Your task to perform on an android device: Go to Amazon Image 0: 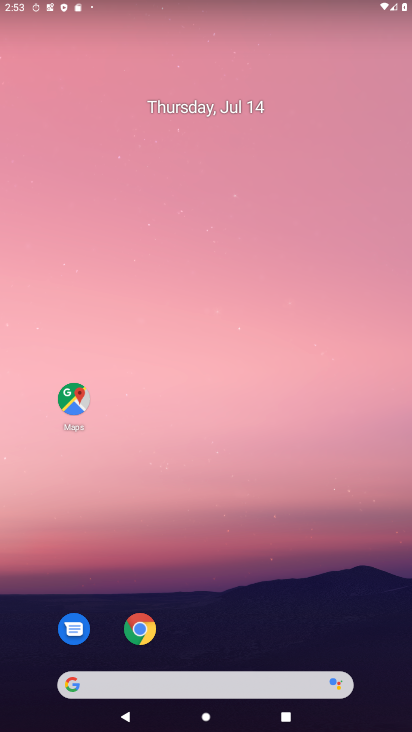
Step 0: click (134, 635)
Your task to perform on an android device: Go to Amazon Image 1: 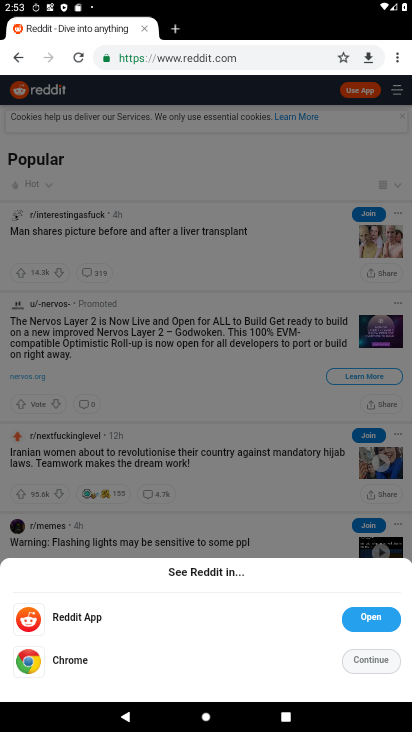
Step 1: click (191, 58)
Your task to perform on an android device: Go to Amazon Image 2: 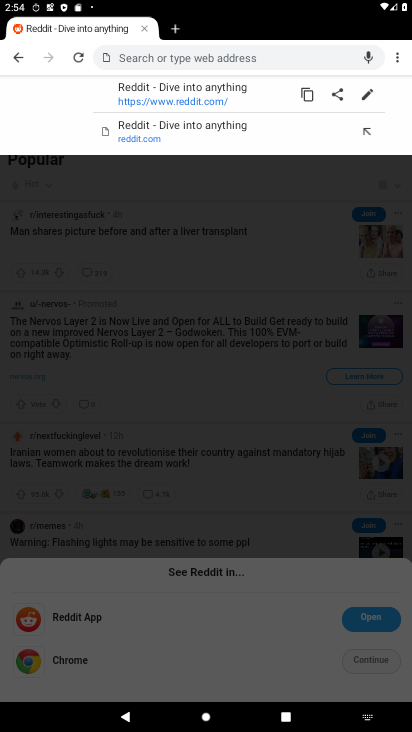
Step 2: type "amazon"
Your task to perform on an android device: Go to Amazon Image 3: 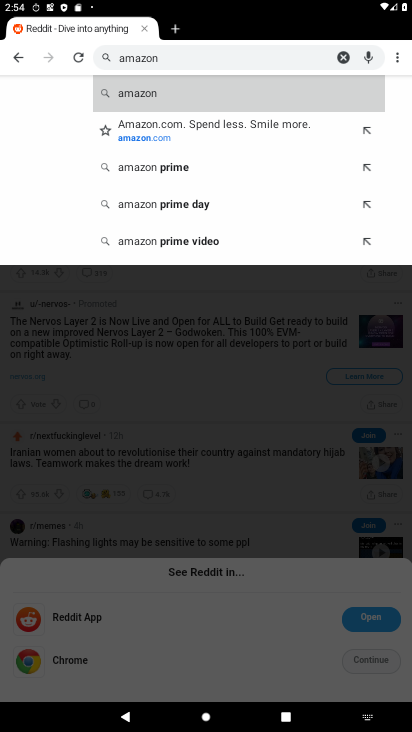
Step 3: click (272, 100)
Your task to perform on an android device: Go to Amazon Image 4: 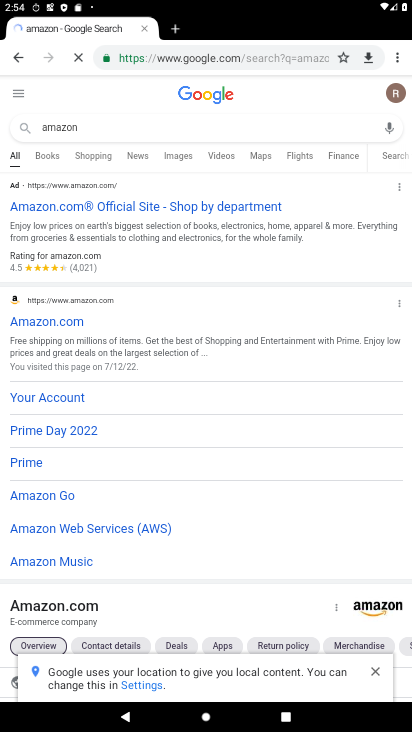
Step 4: click (79, 200)
Your task to perform on an android device: Go to Amazon Image 5: 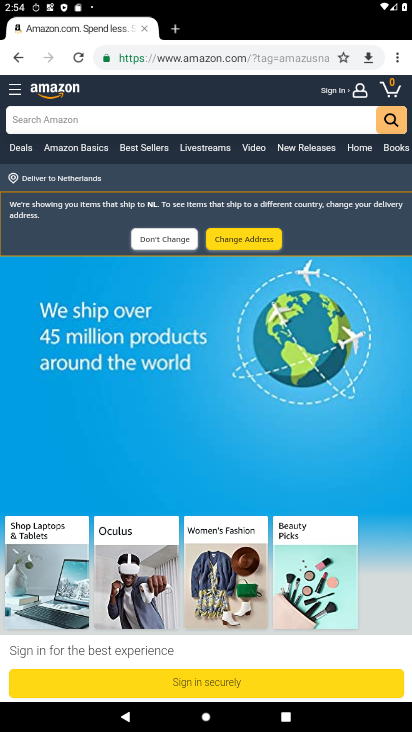
Step 5: task complete